Your task to perform on an android device: turn vacation reply on in the gmail app Image 0: 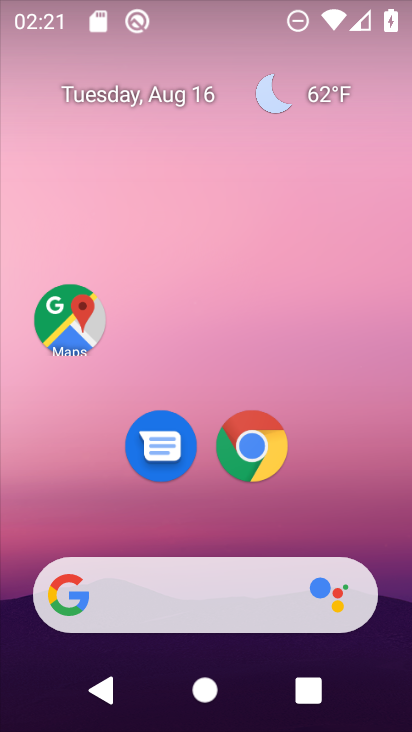
Step 0: press home button
Your task to perform on an android device: turn vacation reply on in the gmail app Image 1: 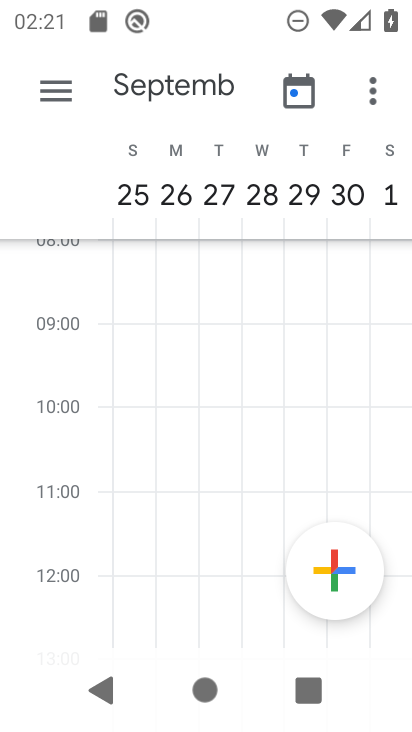
Step 1: drag from (205, 494) to (222, 77)
Your task to perform on an android device: turn vacation reply on in the gmail app Image 2: 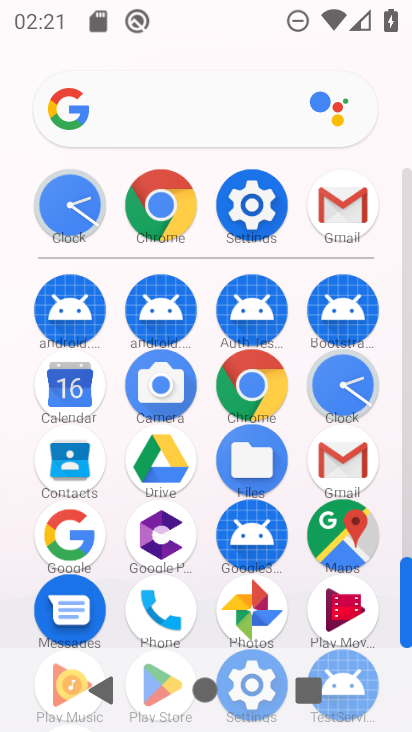
Step 2: click (339, 450)
Your task to perform on an android device: turn vacation reply on in the gmail app Image 3: 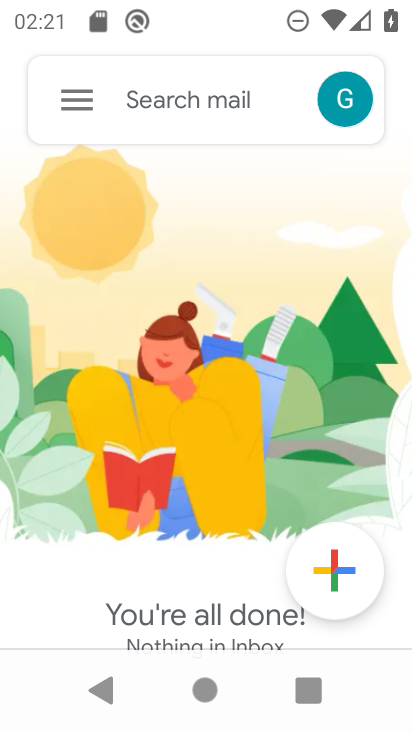
Step 3: click (78, 95)
Your task to perform on an android device: turn vacation reply on in the gmail app Image 4: 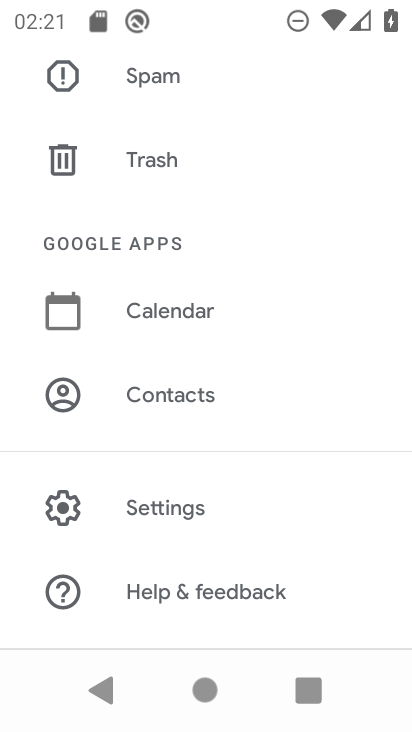
Step 4: click (134, 509)
Your task to perform on an android device: turn vacation reply on in the gmail app Image 5: 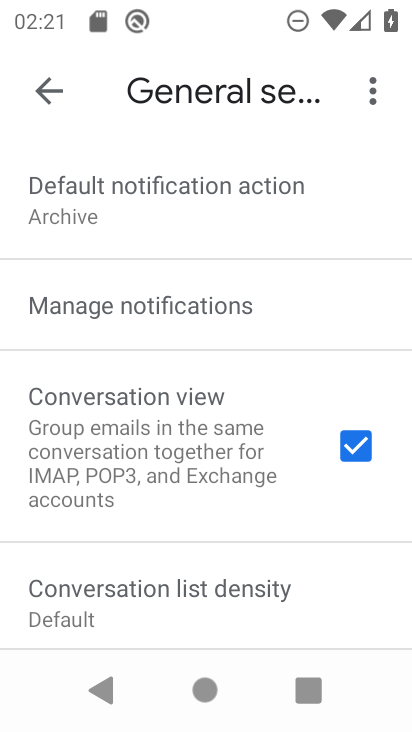
Step 5: click (47, 95)
Your task to perform on an android device: turn vacation reply on in the gmail app Image 6: 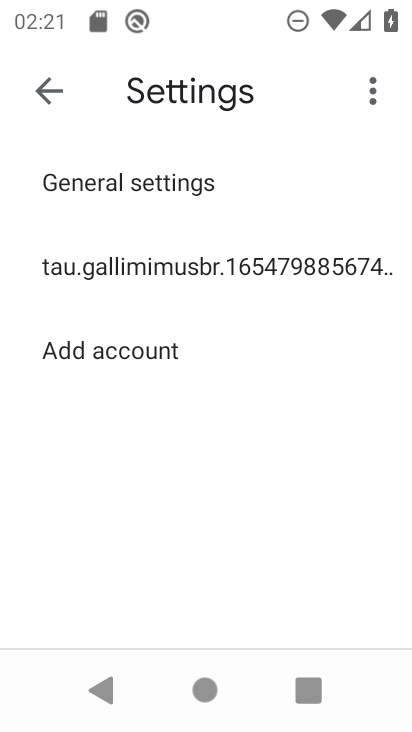
Step 6: click (138, 266)
Your task to perform on an android device: turn vacation reply on in the gmail app Image 7: 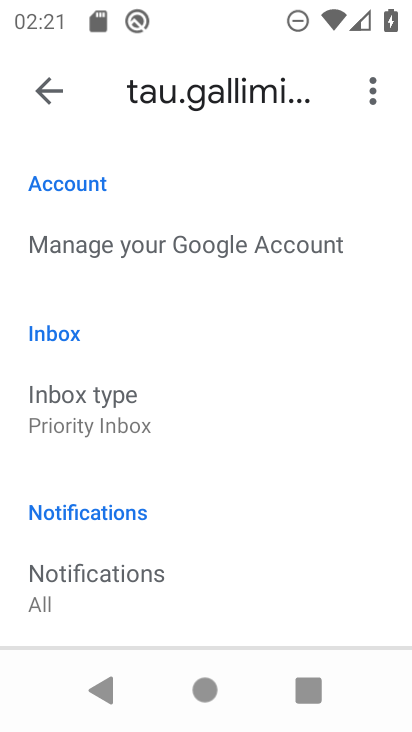
Step 7: drag from (196, 614) to (228, 101)
Your task to perform on an android device: turn vacation reply on in the gmail app Image 8: 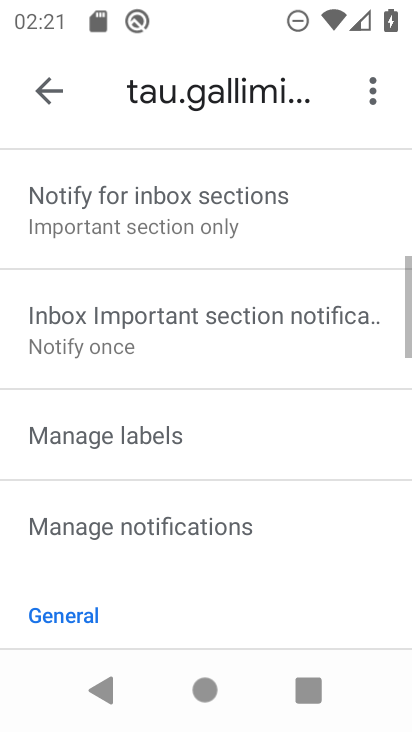
Step 8: drag from (178, 587) to (183, 145)
Your task to perform on an android device: turn vacation reply on in the gmail app Image 9: 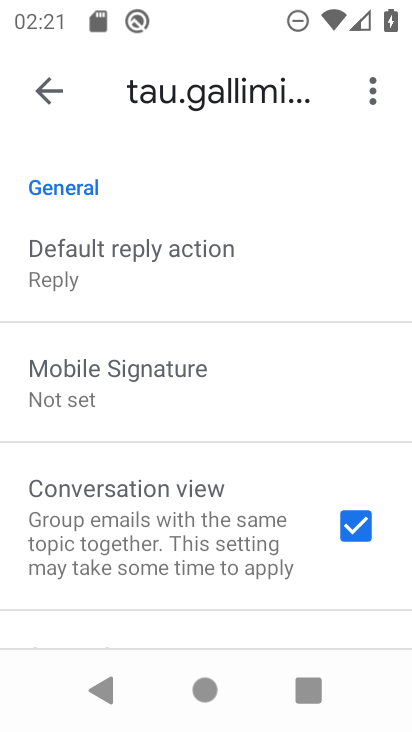
Step 9: drag from (157, 580) to (195, 130)
Your task to perform on an android device: turn vacation reply on in the gmail app Image 10: 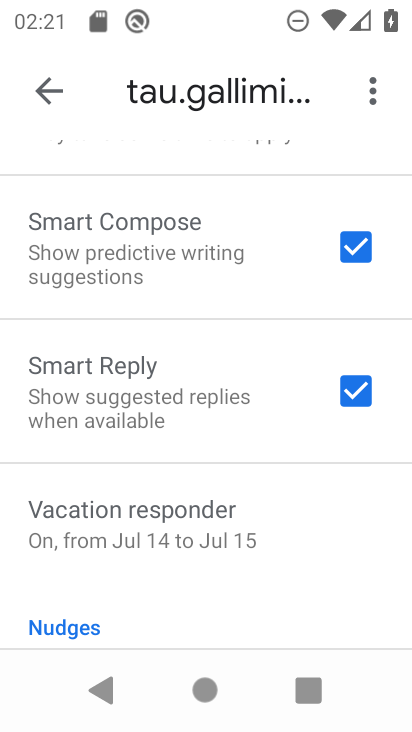
Step 10: click (251, 518)
Your task to perform on an android device: turn vacation reply on in the gmail app Image 11: 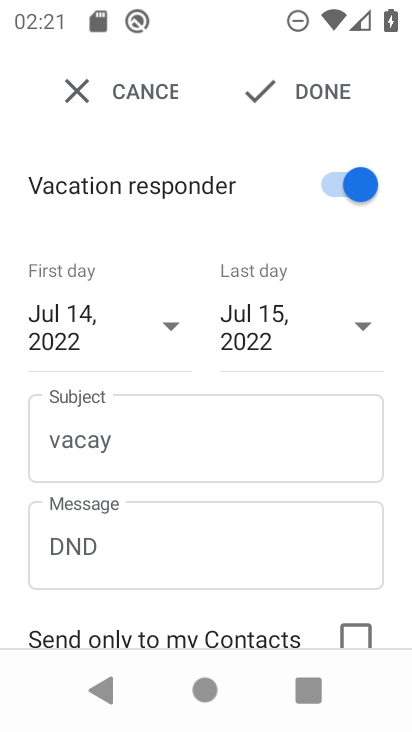
Step 11: task complete